Your task to perform on an android device: turn on notifications settings in the gmail app Image 0: 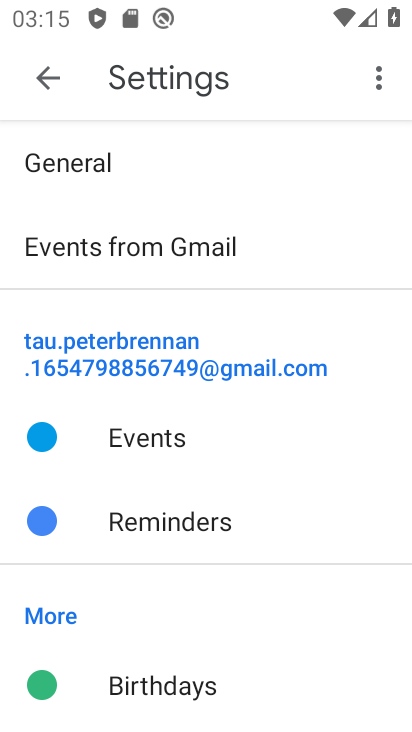
Step 0: press back button
Your task to perform on an android device: turn on notifications settings in the gmail app Image 1: 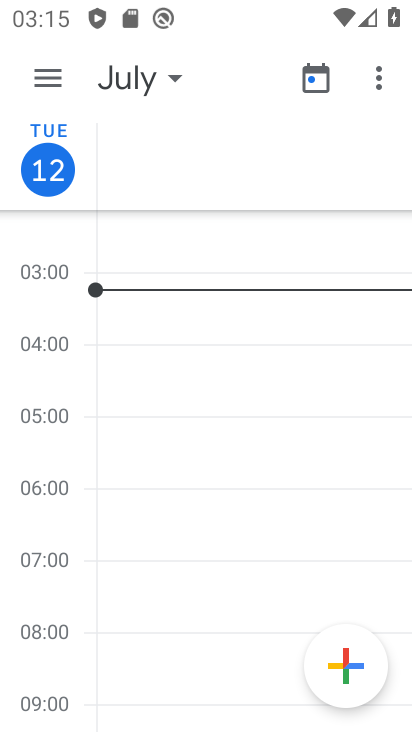
Step 1: press back button
Your task to perform on an android device: turn on notifications settings in the gmail app Image 2: 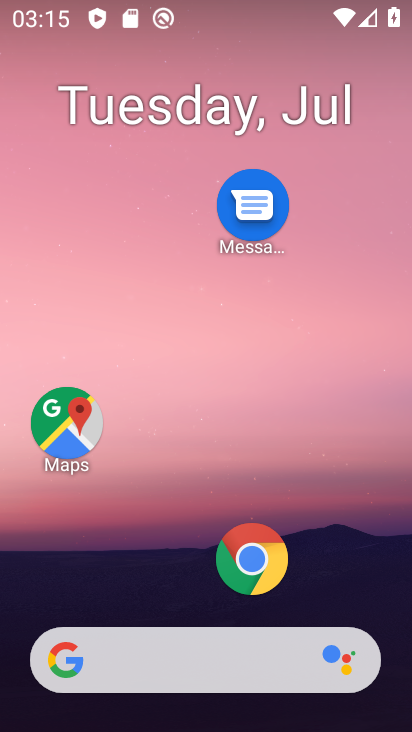
Step 2: drag from (140, 552) to (158, 1)
Your task to perform on an android device: turn on notifications settings in the gmail app Image 3: 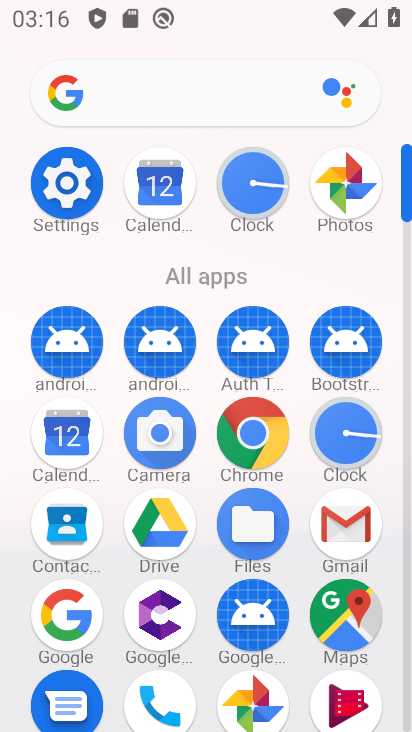
Step 3: click (327, 522)
Your task to perform on an android device: turn on notifications settings in the gmail app Image 4: 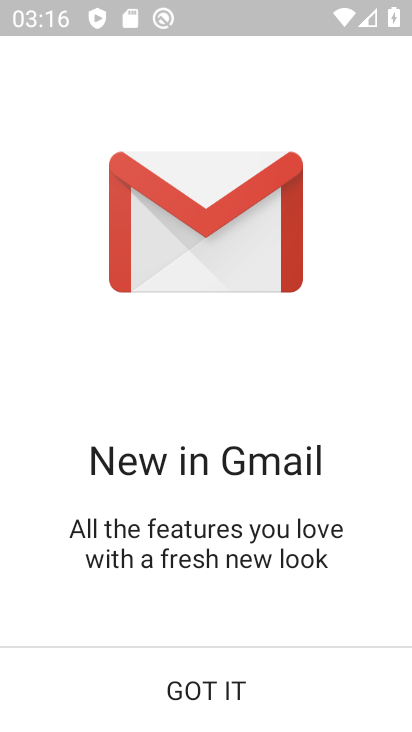
Step 4: click (223, 680)
Your task to perform on an android device: turn on notifications settings in the gmail app Image 5: 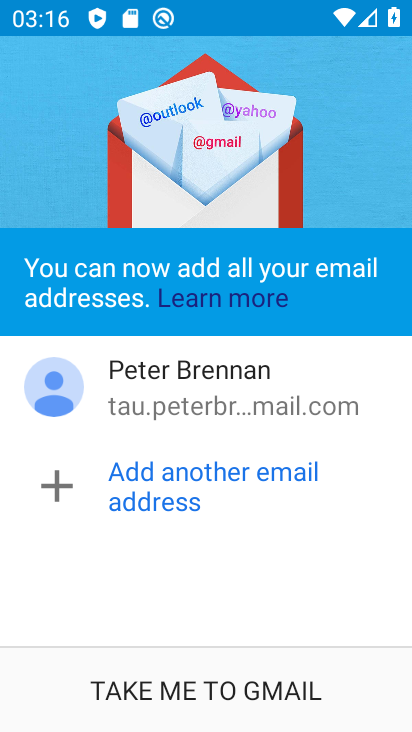
Step 5: click (223, 675)
Your task to perform on an android device: turn on notifications settings in the gmail app Image 6: 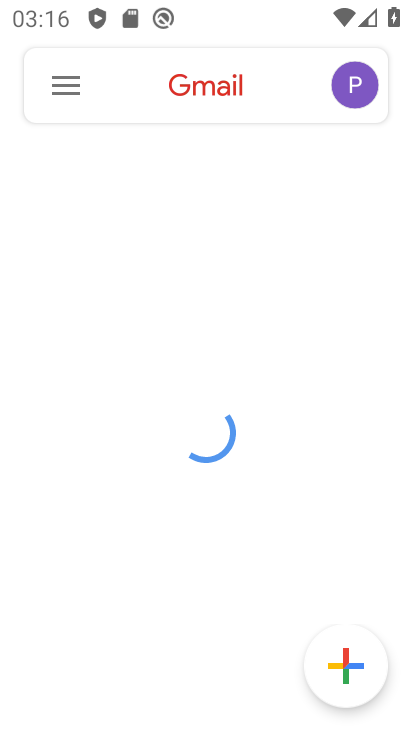
Step 6: click (64, 86)
Your task to perform on an android device: turn on notifications settings in the gmail app Image 7: 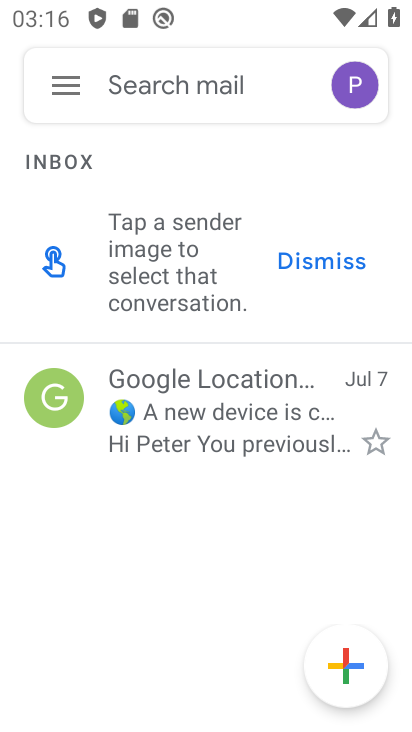
Step 7: click (59, 79)
Your task to perform on an android device: turn on notifications settings in the gmail app Image 8: 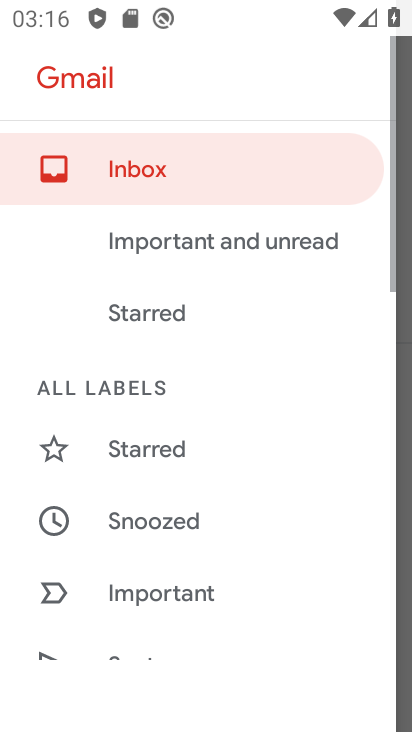
Step 8: drag from (166, 634) to (230, 60)
Your task to perform on an android device: turn on notifications settings in the gmail app Image 9: 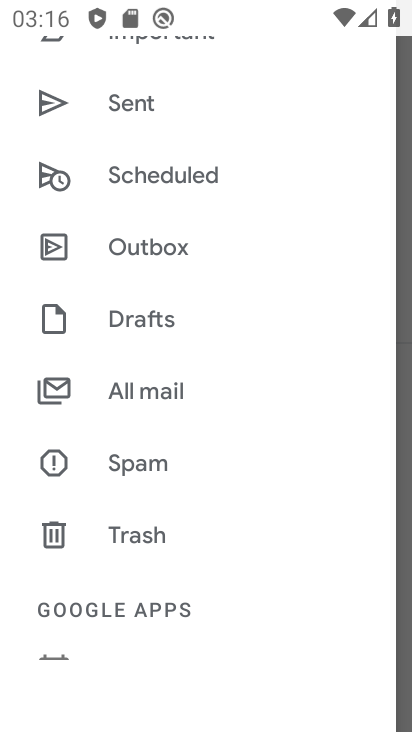
Step 9: drag from (150, 599) to (227, 34)
Your task to perform on an android device: turn on notifications settings in the gmail app Image 10: 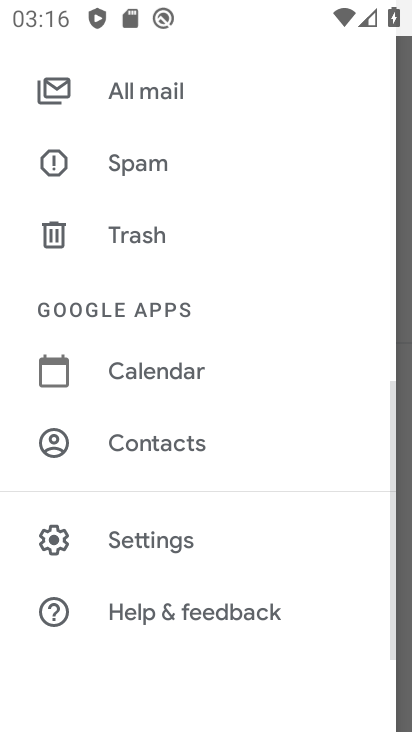
Step 10: click (138, 540)
Your task to perform on an android device: turn on notifications settings in the gmail app Image 11: 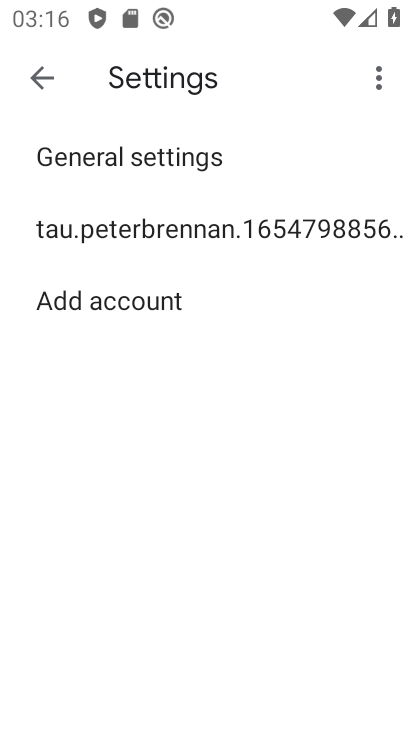
Step 11: click (182, 232)
Your task to perform on an android device: turn on notifications settings in the gmail app Image 12: 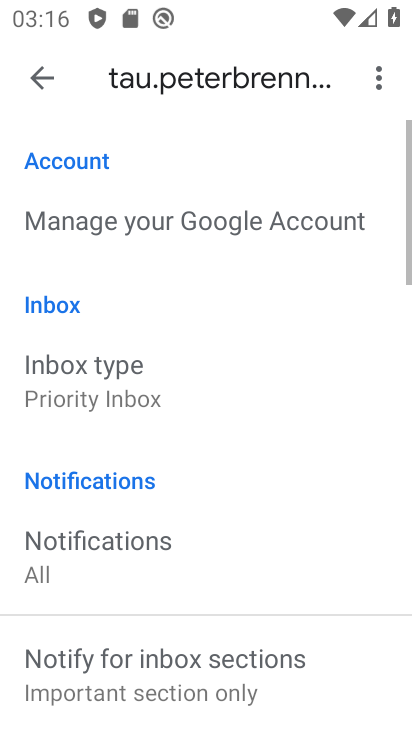
Step 12: drag from (120, 653) to (210, 106)
Your task to perform on an android device: turn on notifications settings in the gmail app Image 13: 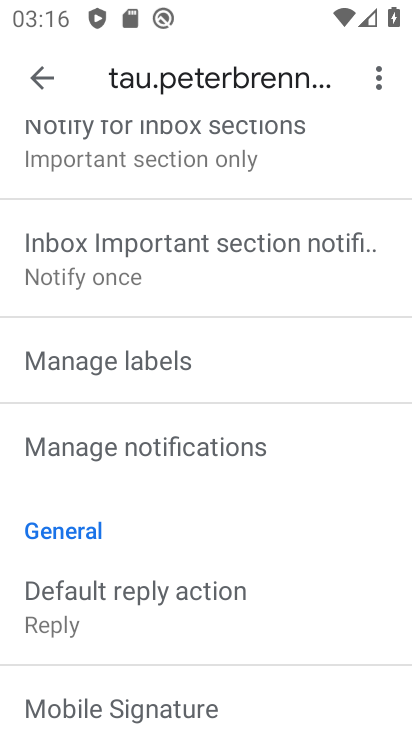
Step 13: click (132, 447)
Your task to perform on an android device: turn on notifications settings in the gmail app Image 14: 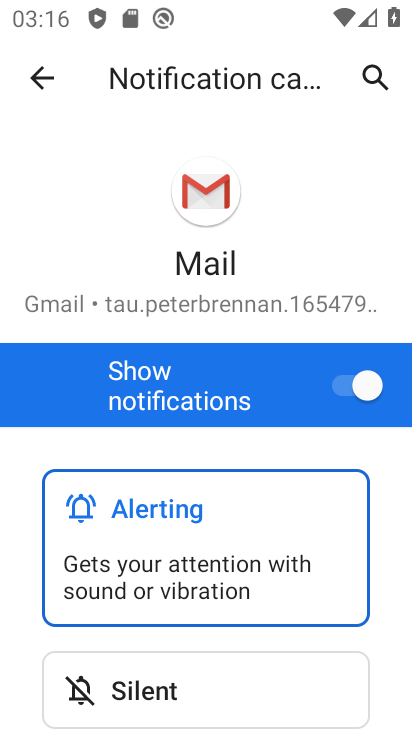
Step 14: task complete